Your task to perform on an android device: Open Google Image 0: 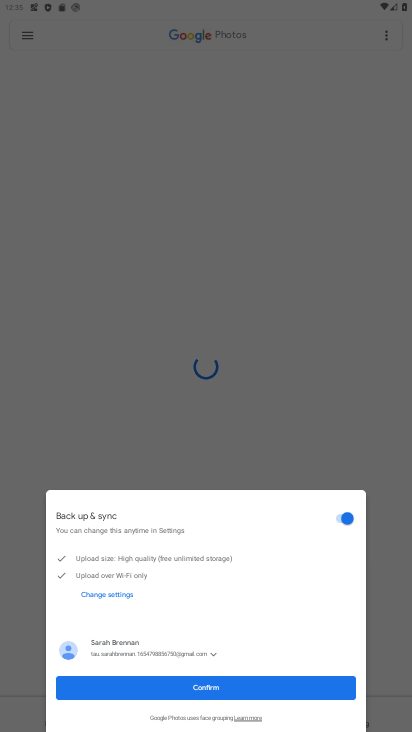
Step 0: task complete